Your task to perform on an android device: check battery use Image 0: 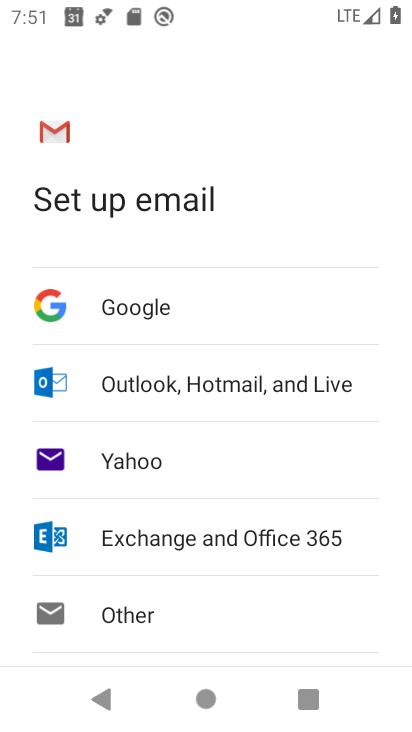
Step 0: press home button
Your task to perform on an android device: check battery use Image 1: 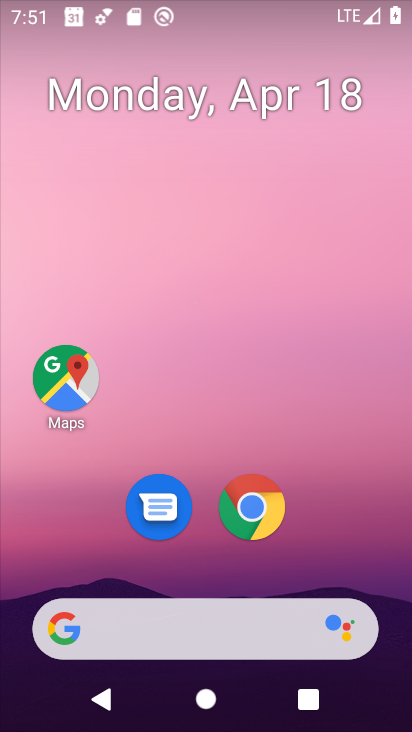
Step 1: drag from (18, 514) to (306, 50)
Your task to perform on an android device: check battery use Image 2: 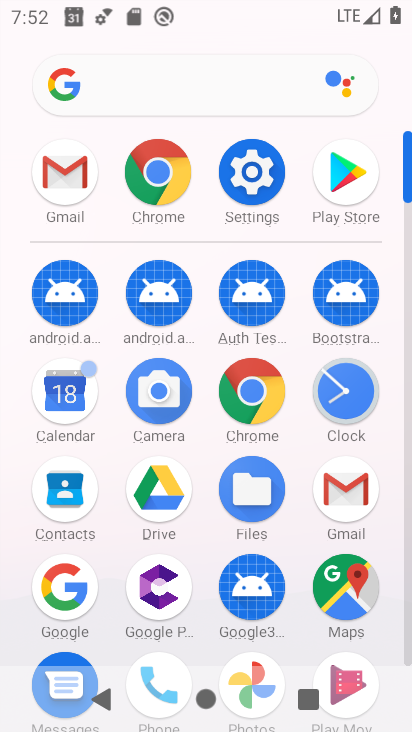
Step 2: click (251, 192)
Your task to perform on an android device: check battery use Image 3: 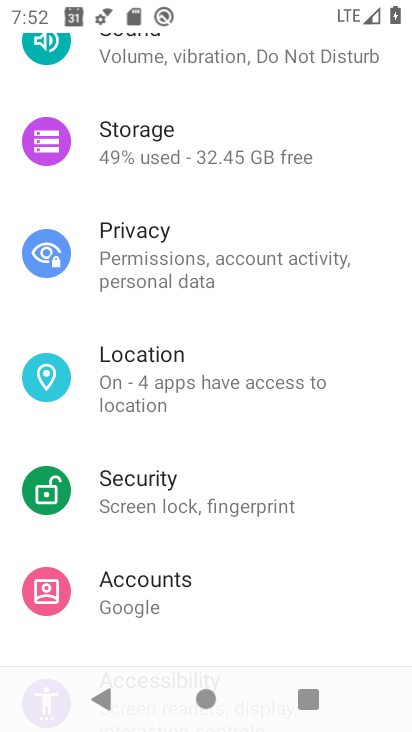
Step 3: drag from (221, 119) to (222, 596)
Your task to perform on an android device: check battery use Image 4: 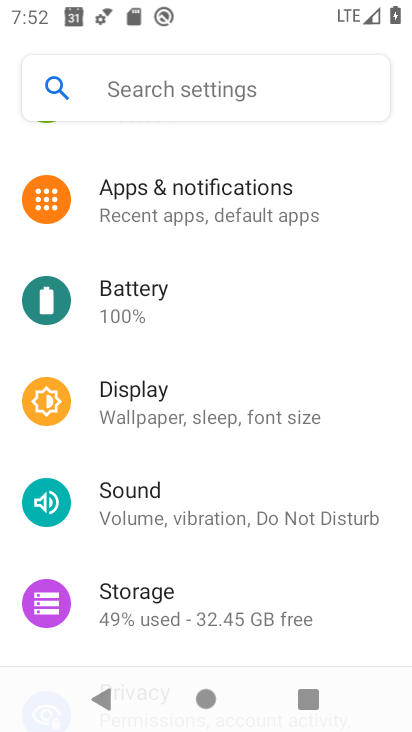
Step 4: click (216, 327)
Your task to perform on an android device: check battery use Image 5: 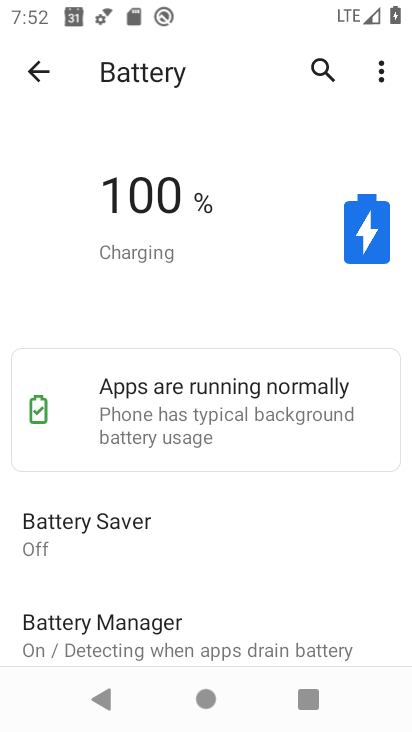
Step 5: click (376, 72)
Your task to perform on an android device: check battery use Image 6: 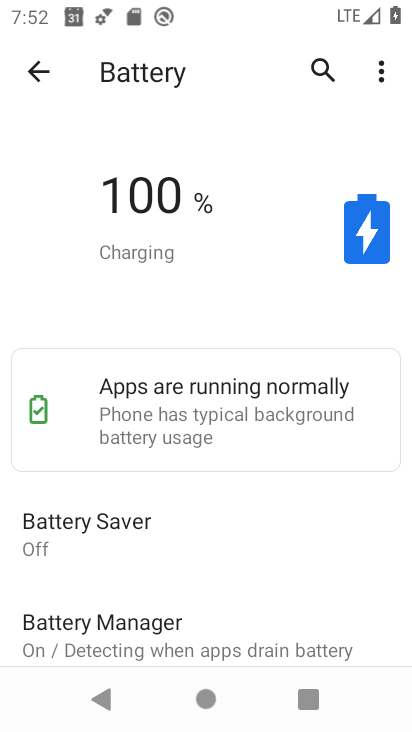
Step 6: click (376, 72)
Your task to perform on an android device: check battery use Image 7: 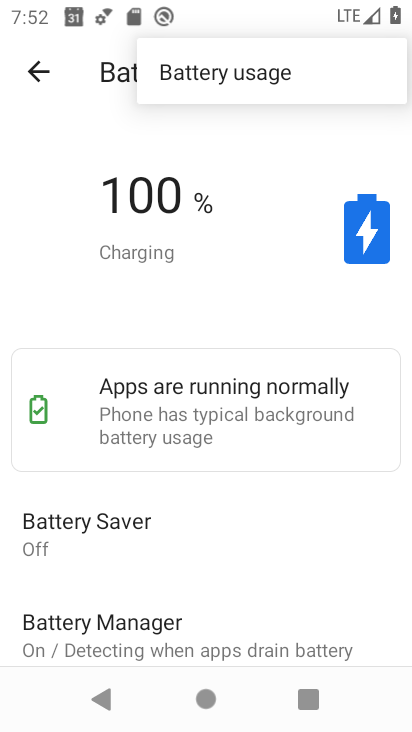
Step 7: click (282, 61)
Your task to perform on an android device: check battery use Image 8: 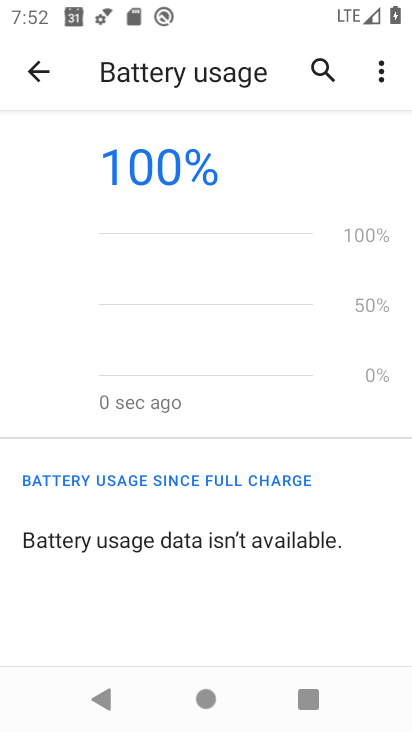
Step 8: task complete